Your task to perform on an android device: Open Wikipedia Image 0: 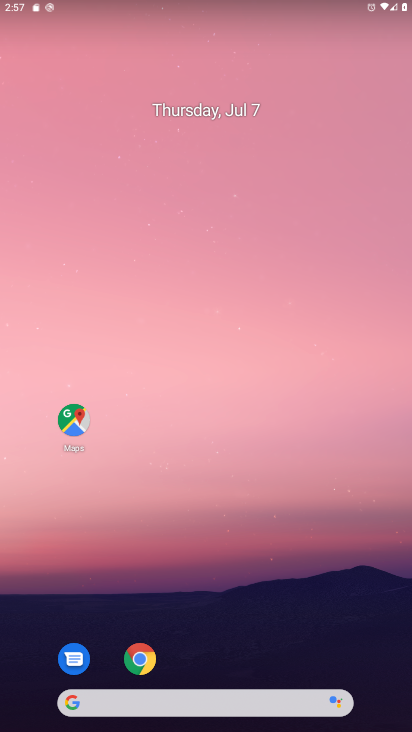
Step 0: click (151, 667)
Your task to perform on an android device: Open Wikipedia Image 1: 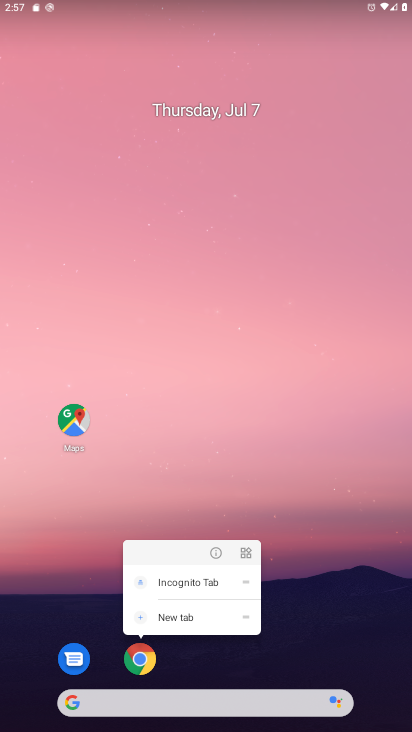
Step 1: click (130, 667)
Your task to perform on an android device: Open Wikipedia Image 2: 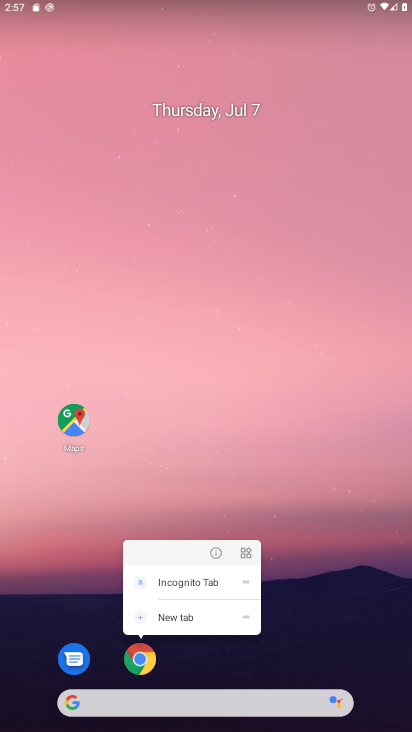
Step 2: click (130, 667)
Your task to perform on an android device: Open Wikipedia Image 3: 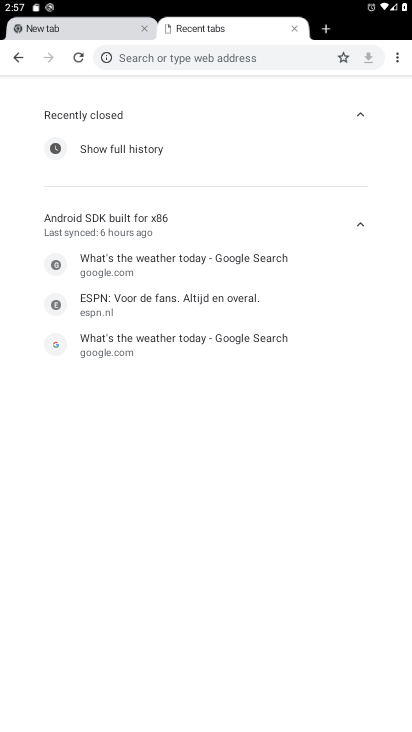
Step 3: click (183, 66)
Your task to perform on an android device: Open Wikipedia Image 4: 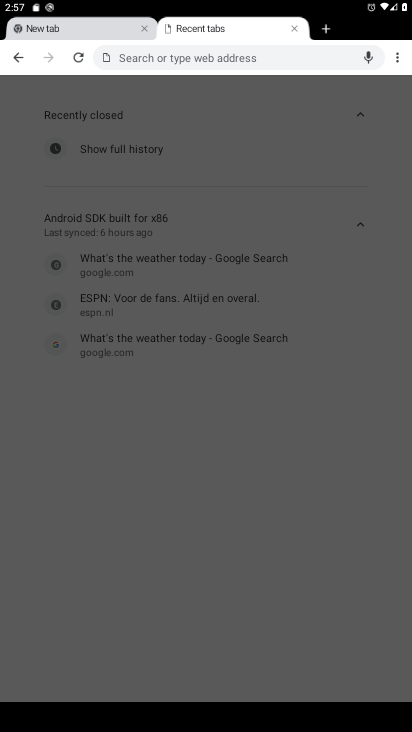
Step 4: type "wikipedia"
Your task to perform on an android device: Open Wikipedia Image 5: 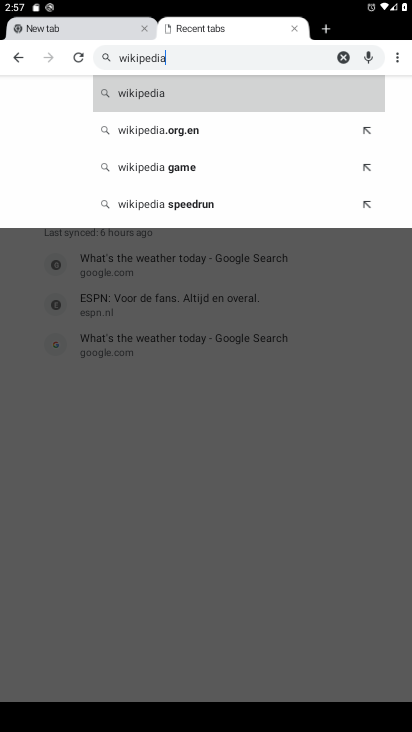
Step 5: click (245, 103)
Your task to perform on an android device: Open Wikipedia Image 6: 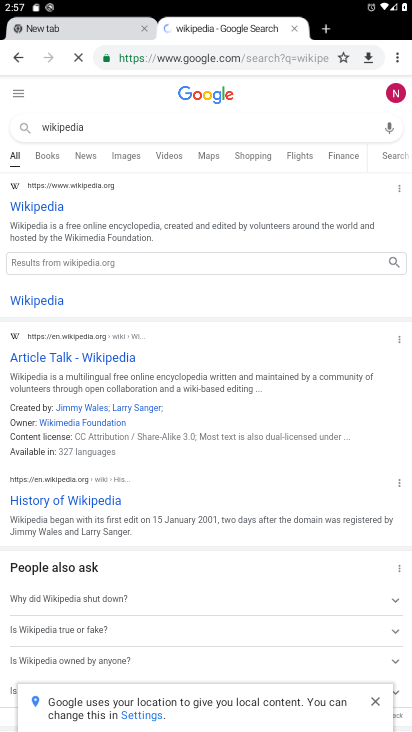
Step 6: task complete